Your task to perform on an android device: Open the calendar and show me this week's events? Image 0: 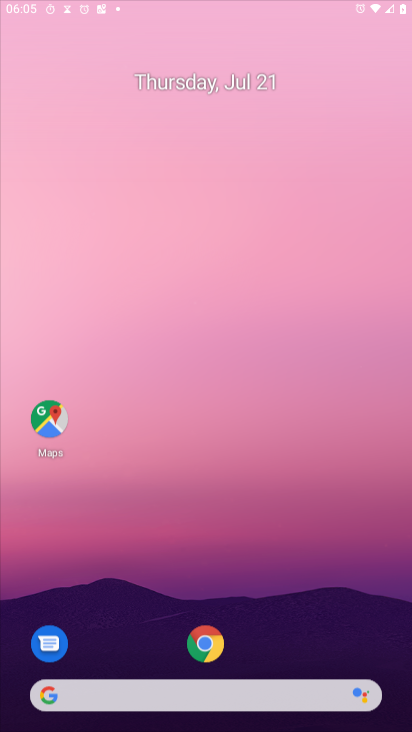
Step 0: press home button
Your task to perform on an android device: Open the calendar and show me this week's events? Image 1: 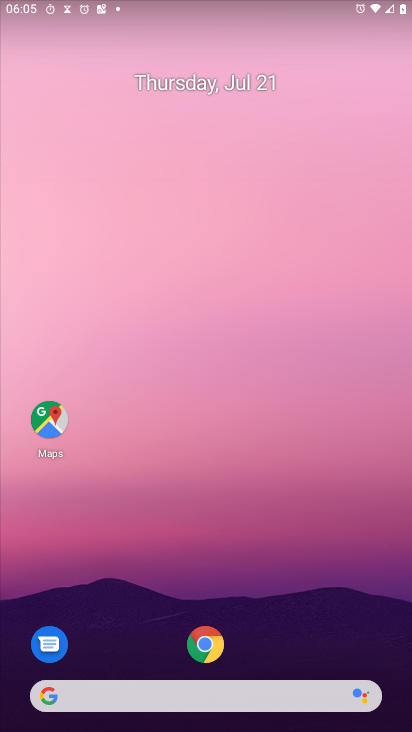
Step 1: drag from (312, 629) to (303, 233)
Your task to perform on an android device: Open the calendar and show me this week's events? Image 2: 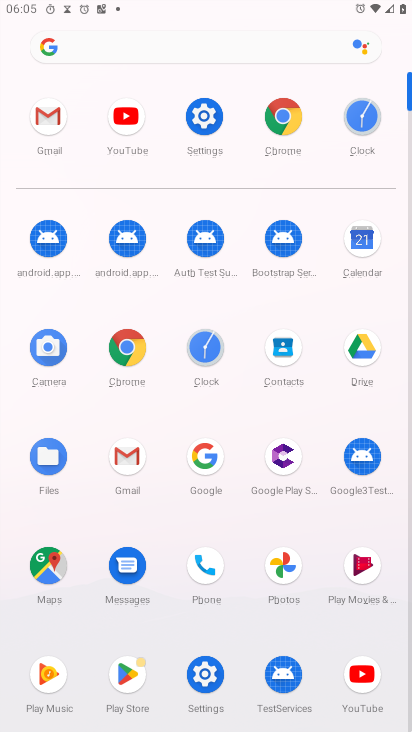
Step 2: click (364, 253)
Your task to perform on an android device: Open the calendar and show me this week's events? Image 3: 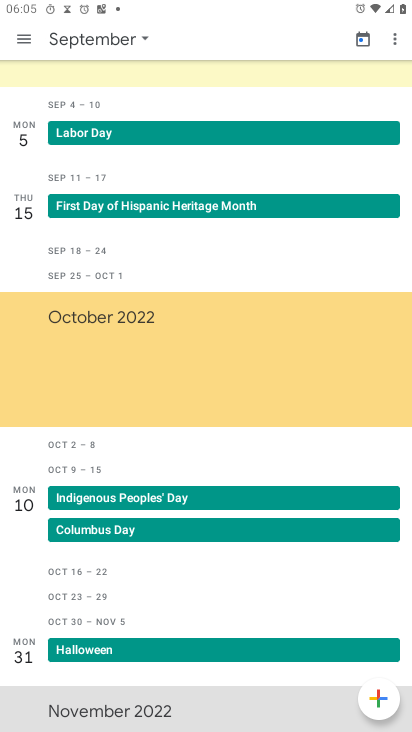
Step 3: click (23, 34)
Your task to perform on an android device: Open the calendar and show me this week's events? Image 4: 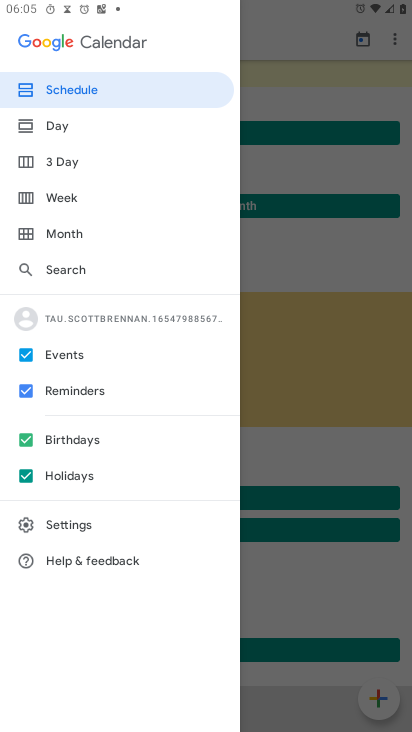
Step 4: click (70, 192)
Your task to perform on an android device: Open the calendar and show me this week's events? Image 5: 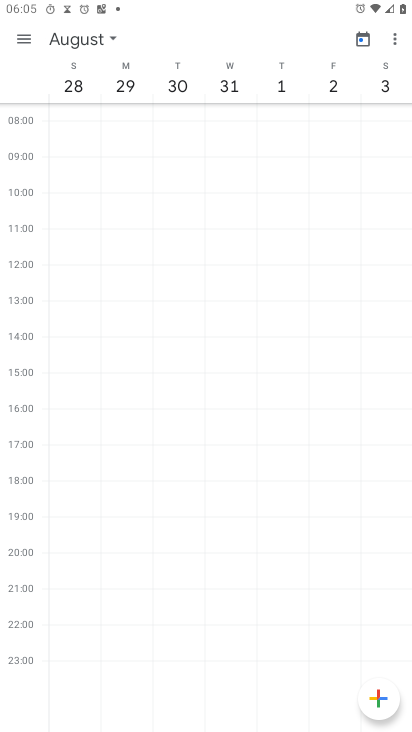
Step 5: task complete